Your task to perform on an android device: find snoozed emails in the gmail app Image 0: 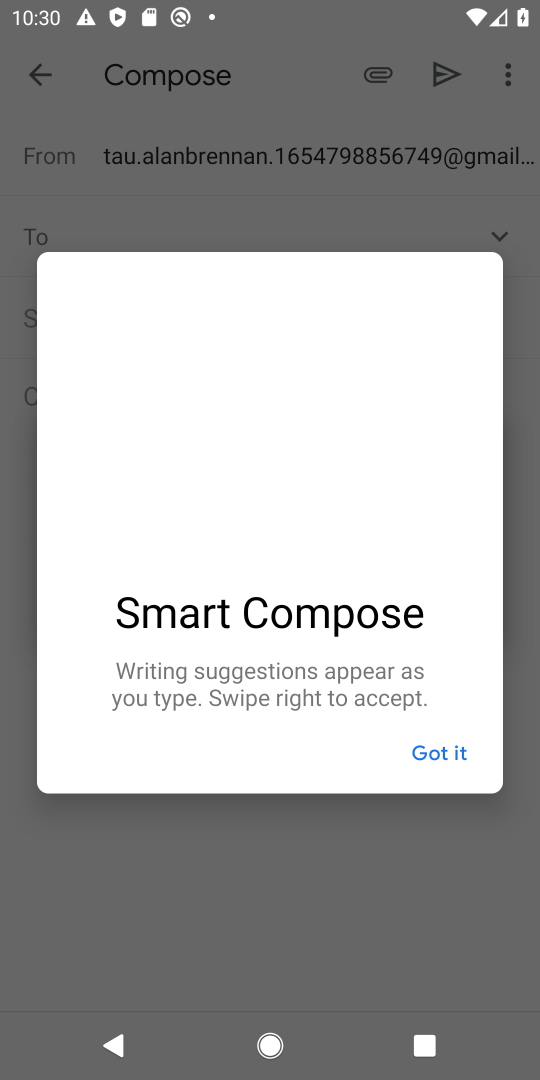
Step 0: press home button
Your task to perform on an android device: find snoozed emails in the gmail app Image 1: 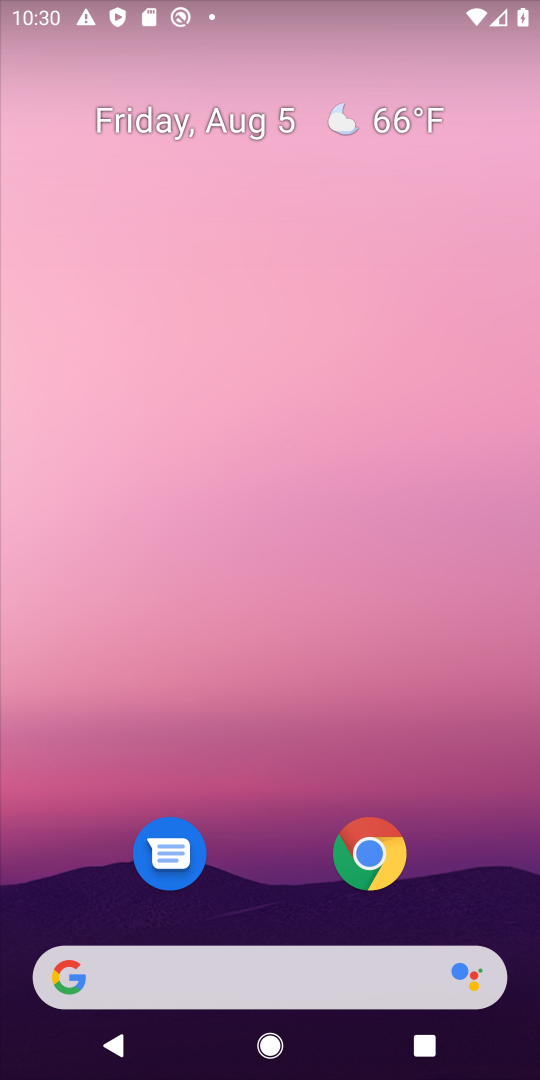
Step 1: drag from (270, 890) to (186, 148)
Your task to perform on an android device: find snoozed emails in the gmail app Image 2: 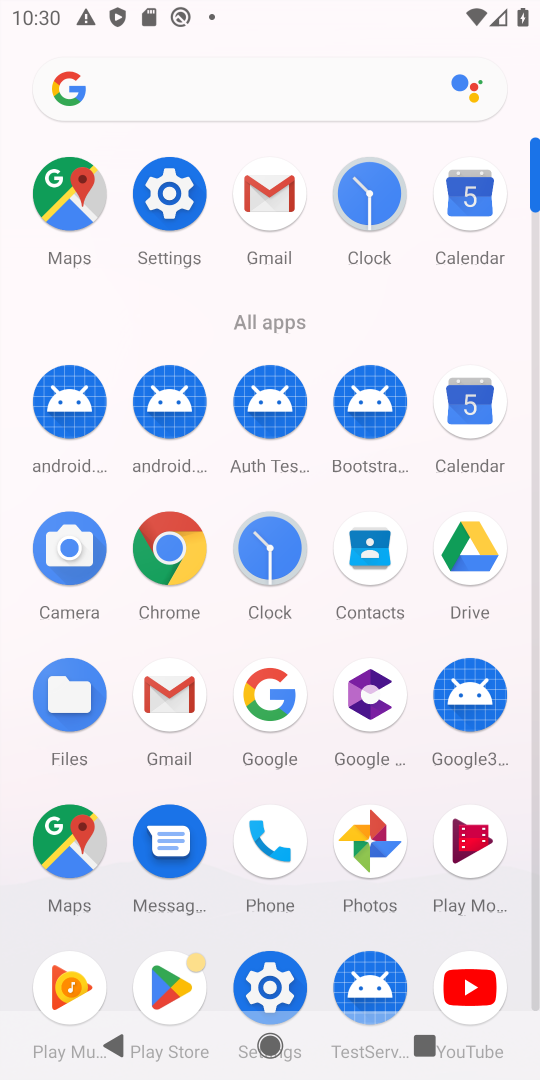
Step 2: click (160, 703)
Your task to perform on an android device: find snoozed emails in the gmail app Image 3: 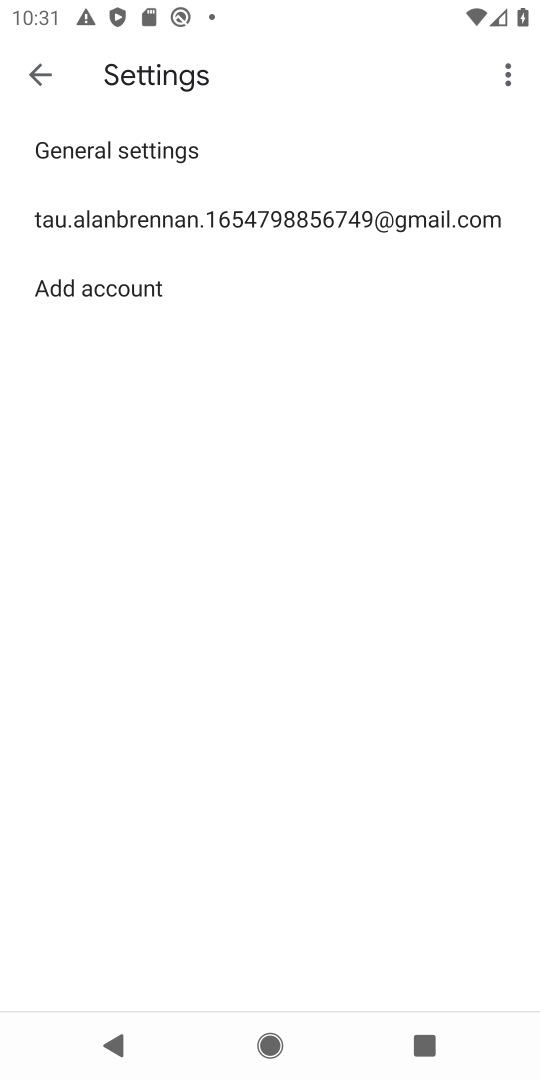
Step 3: click (37, 88)
Your task to perform on an android device: find snoozed emails in the gmail app Image 4: 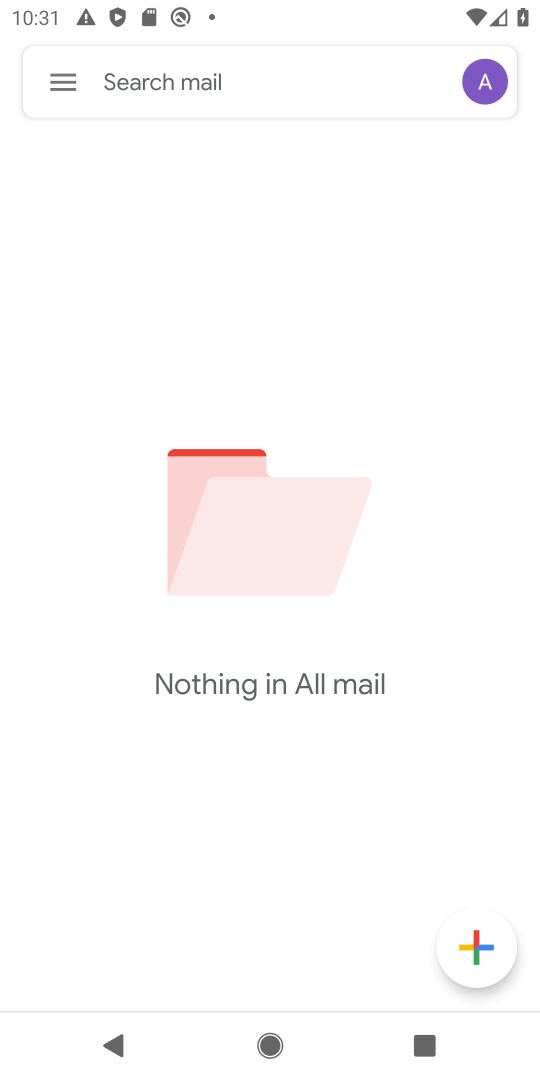
Step 4: click (63, 80)
Your task to perform on an android device: find snoozed emails in the gmail app Image 5: 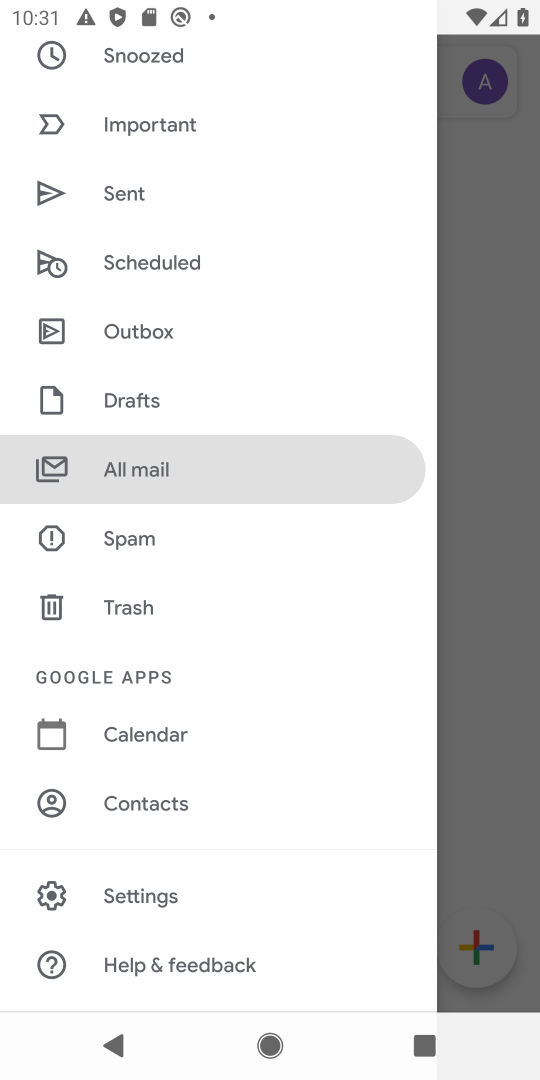
Step 5: click (217, 52)
Your task to perform on an android device: find snoozed emails in the gmail app Image 6: 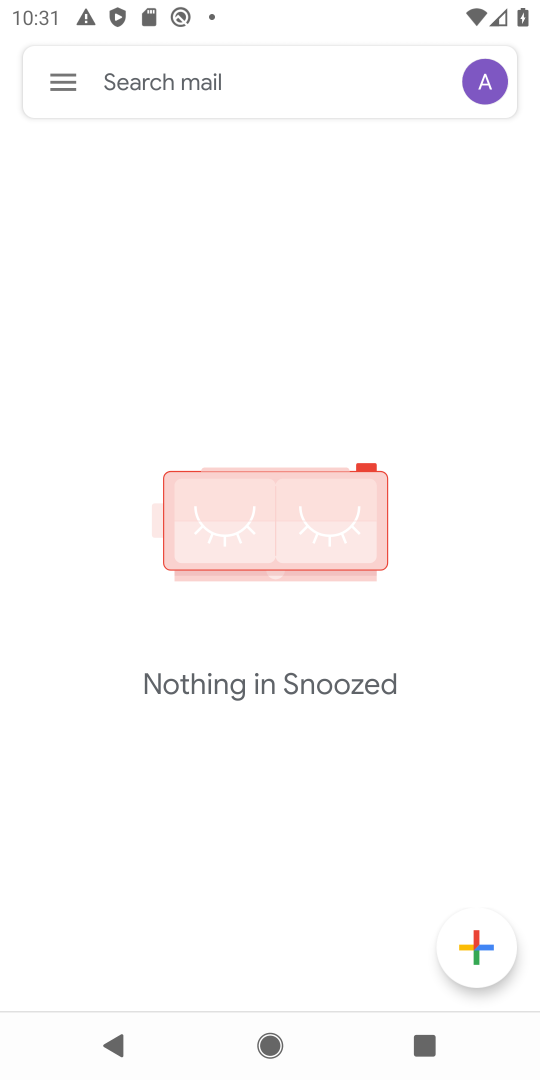
Step 6: task complete